Your task to perform on an android device: Go to settings Image 0: 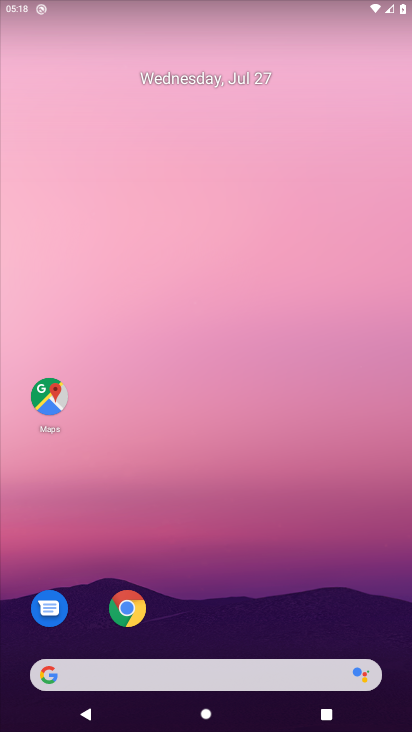
Step 0: press home button
Your task to perform on an android device: Go to settings Image 1: 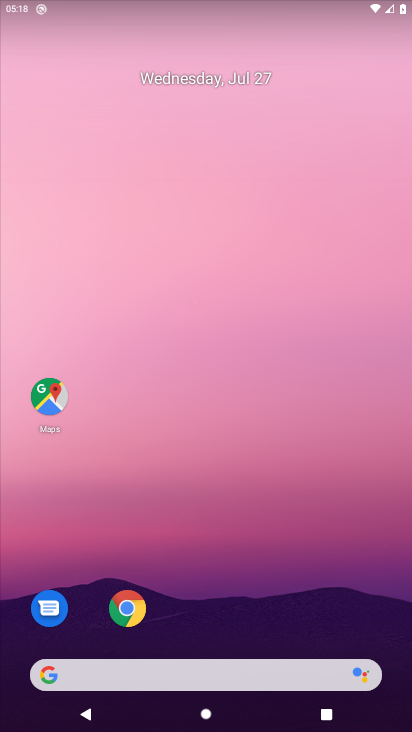
Step 1: drag from (229, 625) to (380, 46)
Your task to perform on an android device: Go to settings Image 2: 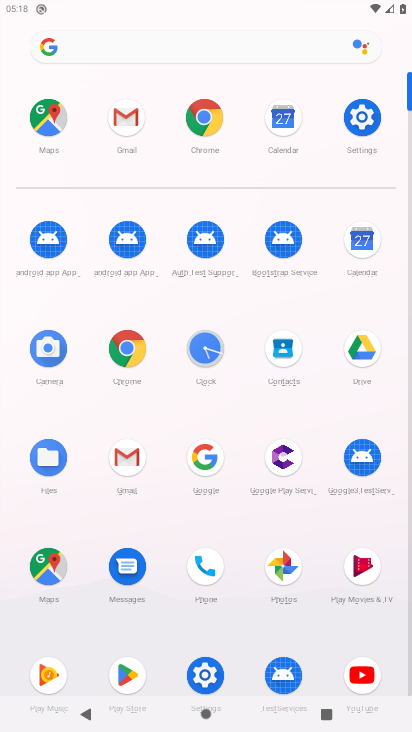
Step 2: click (354, 131)
Your task to perform on an android device: Go to settings Image 3: 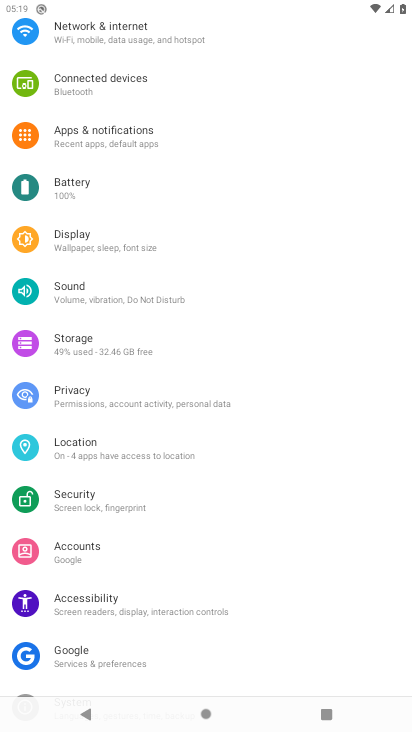
Step 3: task complete